Your task to perform on an android device: toggle notification dots Image 0: 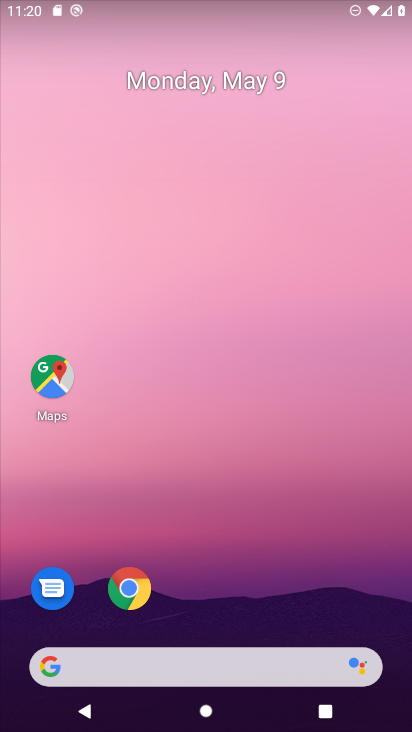
Step 0: drag from (301, 564) to (159, 141)
Your task to perform on an android device: toggle notification dots Image 1: 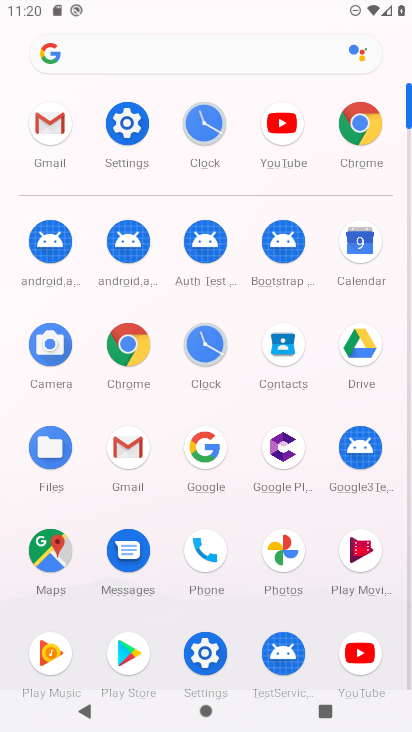
Step 1: click (140, 153)
Your task to perform on an android device: toggle notification dots Image 2: 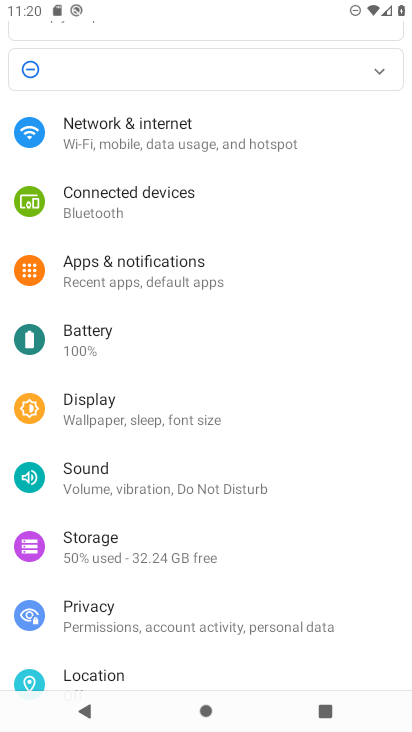
Step 2: click (168, 259)
Your task to perform on an android device: toggle notification dots Image 3: 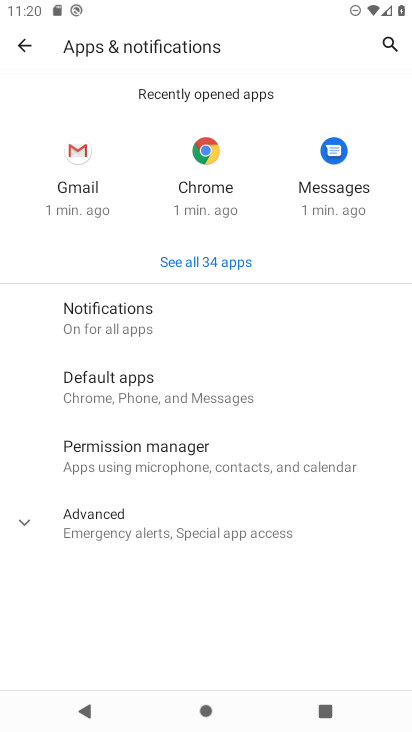
Step 3: click (159, 335)
Your task to perform on an android device: toggle notification dots Image 4: 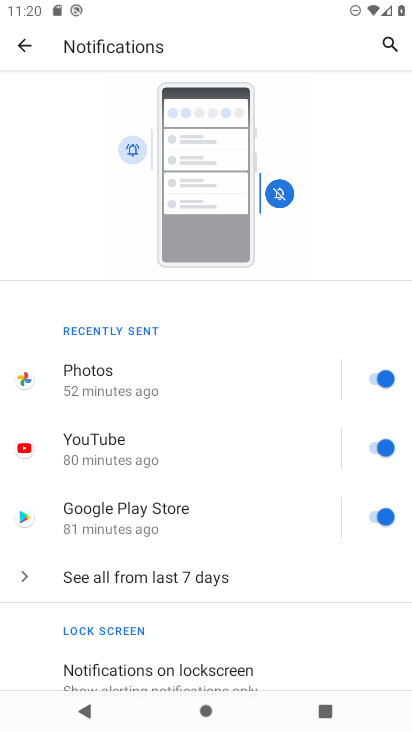
Step 4: drag from (187, 641) to (188, 418)
Your task to perform on an android device: toggle notification dots Image 5: 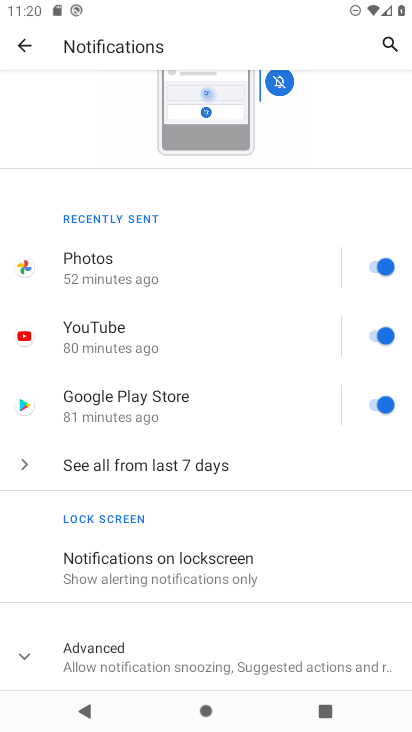
Step 5: click (170, 639)
Your task to perform on an android device: toggle notification dots Image 6: 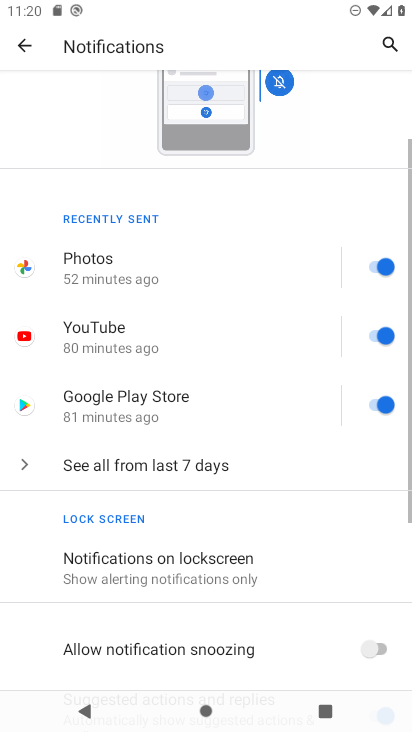
Step 6: drag from (305, 598) to (288, 255)
Your task to perform on an android device: toggle notification dots Image 7: 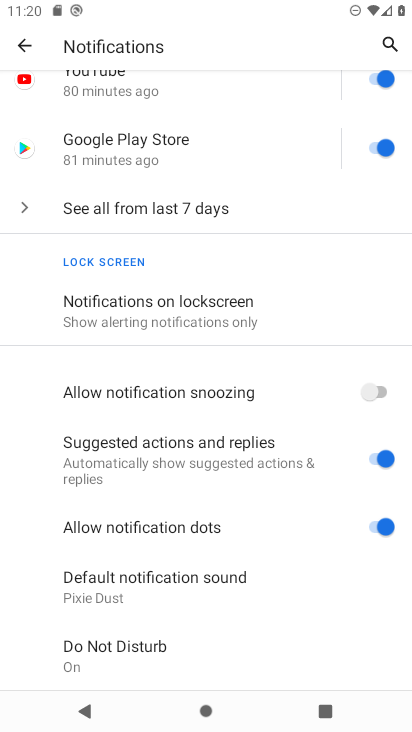
Step 7: click (360, 523)
Your task to perform on an android device: toggle notification dots Image 8: 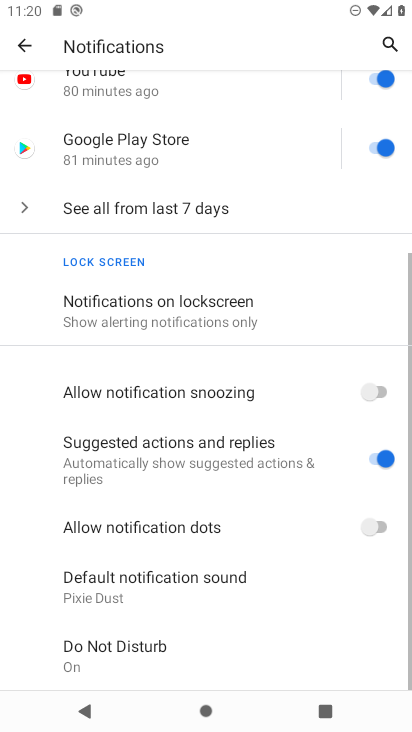
Step 8: task complete